Your task to perform on an android device: Open Maps and search for coffee Image 0: 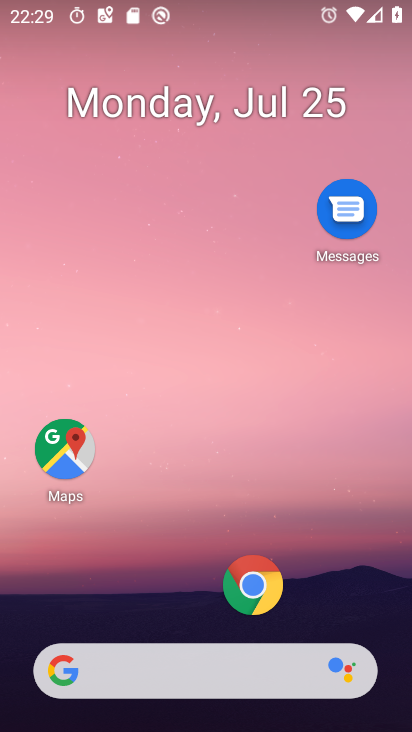
Step 0: press home button
Your task to perform on an android device: Open Maps and search for coffee Image 1: 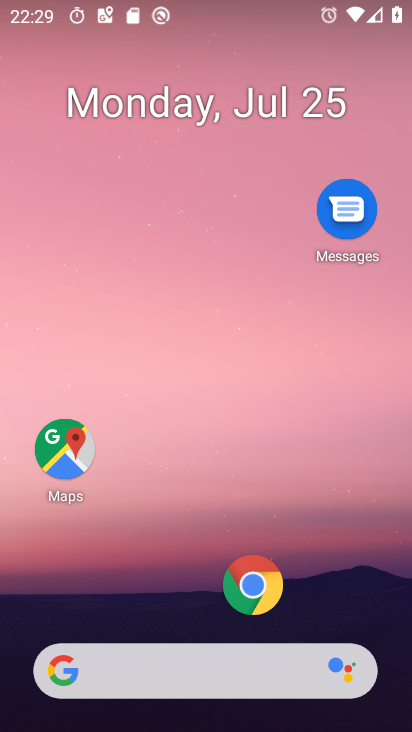
Step 1: click (62, 451)
Your task to perform on an android device: Open Maps and search for coffee Image 2: 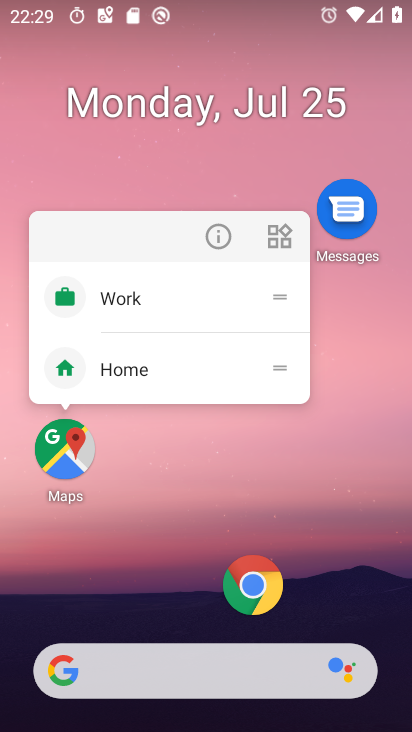
Step 2: click (67, 453)
Your task to perform on an android device: Open Maps and search for coffee Image 3: 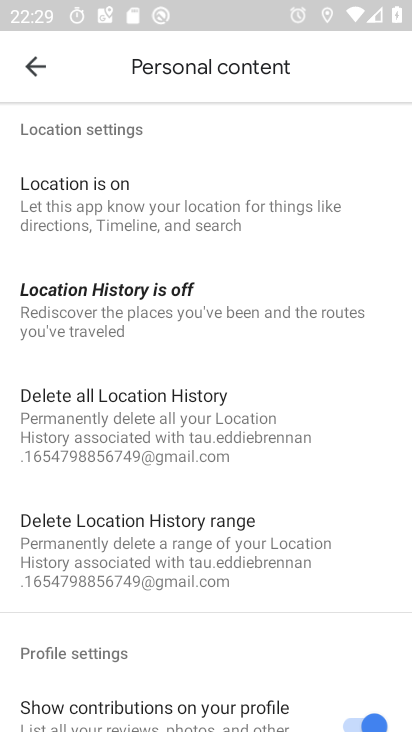
Step 3: click (42, 73)
Your task to perform on an android device: Open Maps and search for coffee Image 4: 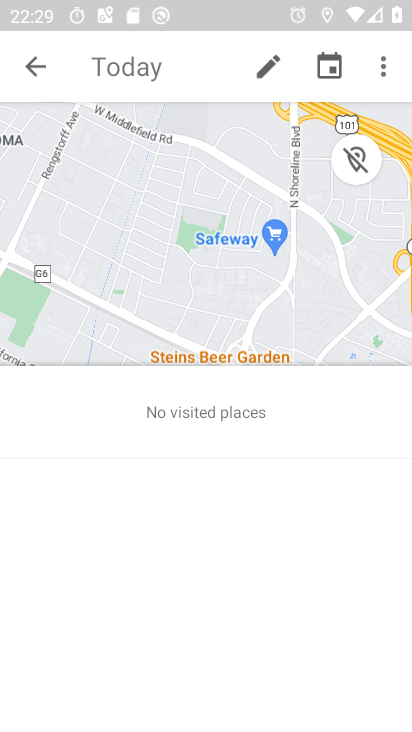
Step 4: click (38, 68)
Your task to perform on an android device: Open Maps and search for coffee Image 5: 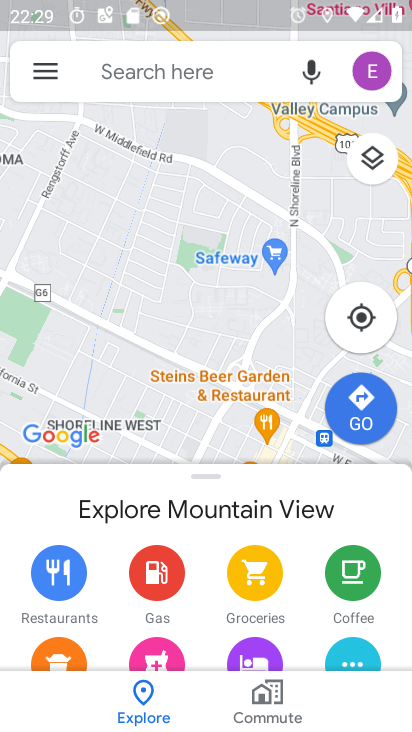
Step 5: click (170, 73)
Your task to perform on an android device: Open Maps and search for coffee Image 6: 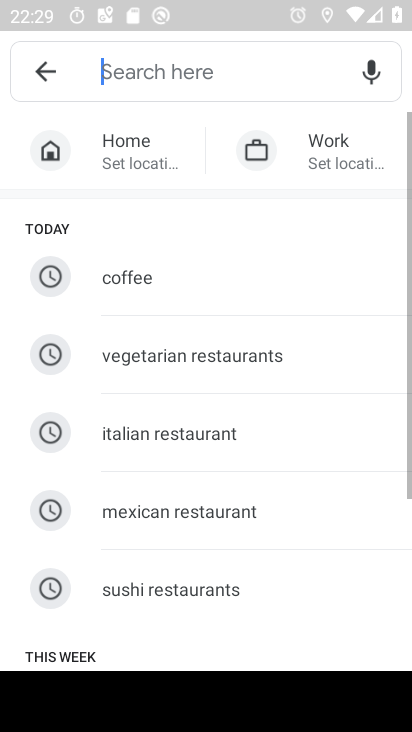
Step 6: click (145, 280)
Your task to perform on an android device: Open Maps and search for coffee Image 7: 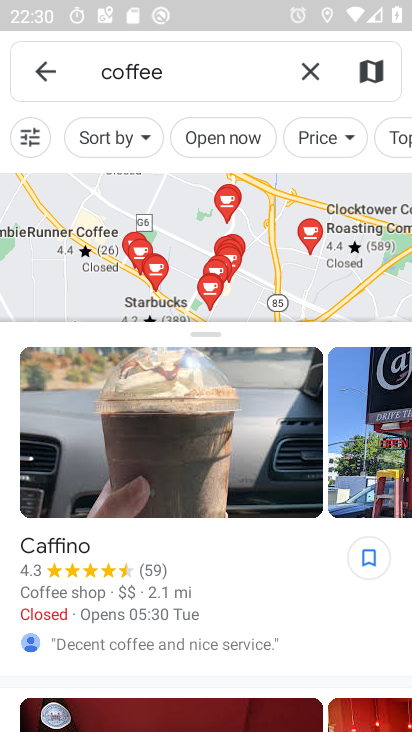
Step 7: task complete